Your task to perform on an android device: Go to sound settings Image 0: 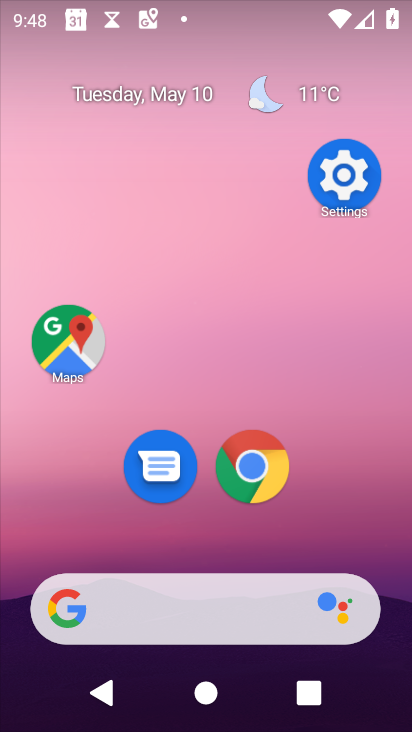
Step 0: drag from (215, 545) to (197, 45)
Your task to perform on an android device: Go to sound settings Image 1: 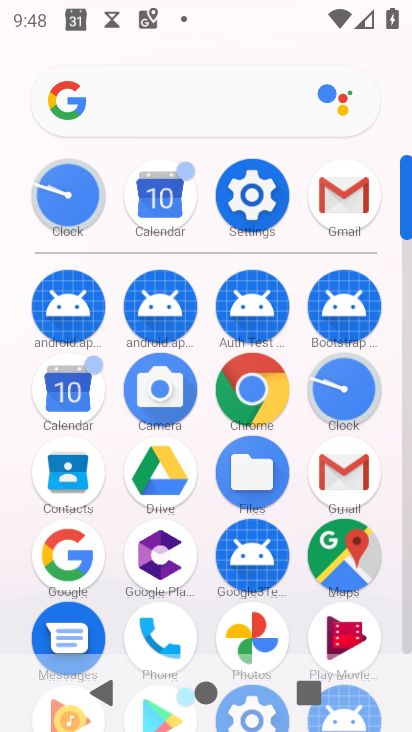
Step 1: click (243, 189)
Your task to perform on an android device: Go to sound settings Image 2: 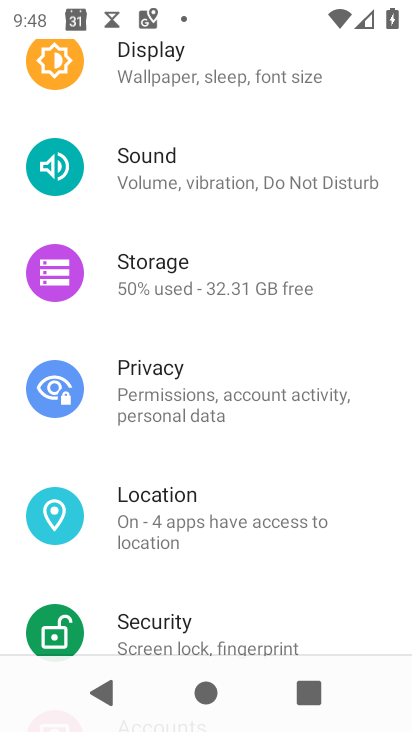
Step 2: click (168, 182)
Your task to perform on an android device: Go to sound settings Image 3: 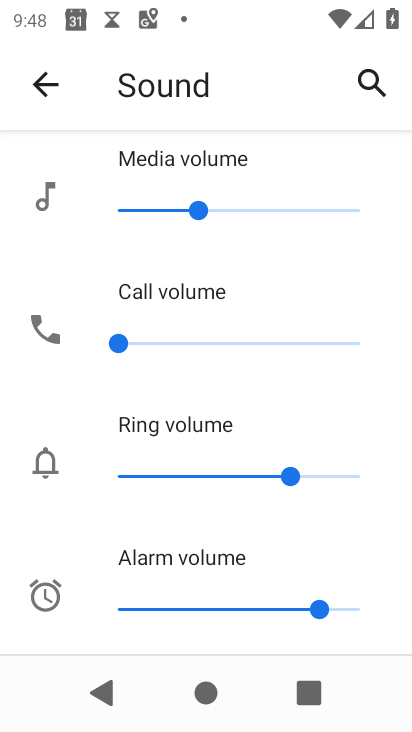
Step 3: task complete